Your task to perform on an android device: turn on notifications settings in the gmail app Image 0: 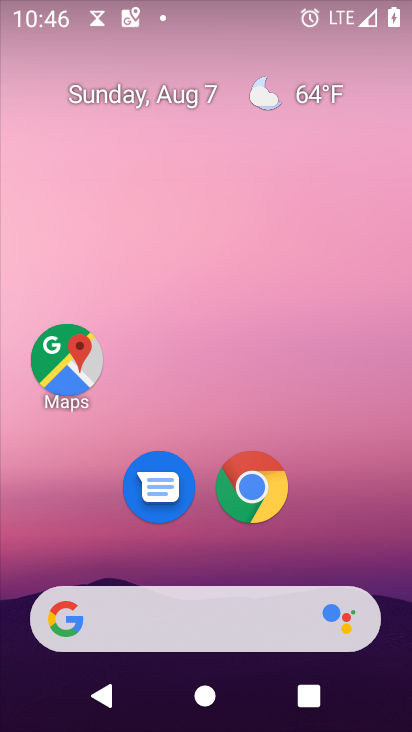
Step 0: drag from (380, 709) to (317, 66)
Your task to perform on an android device: turn on notifications settings in the gmail app Image 1: 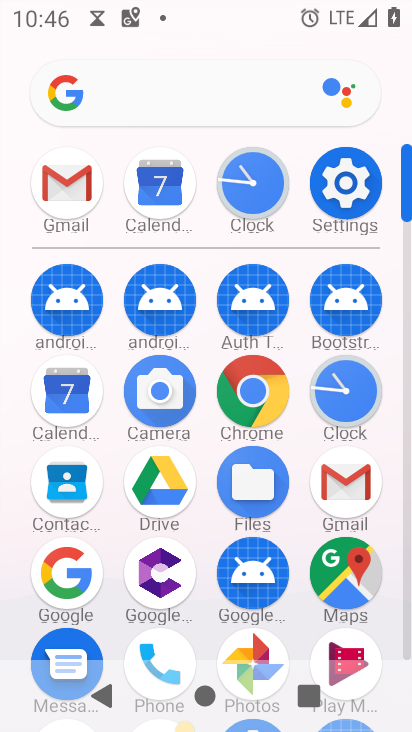
Step 1: click (350, 486)
Your task to perform on an android device: turn on notifications settings in the gmail app Image 2: 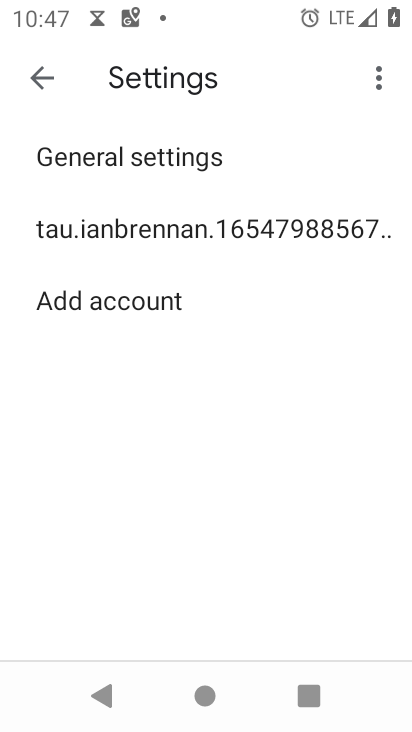
Step 2: click (184, 225)
Your task to perform on an android device: turn on notifications settings in the gmail app Image 3: 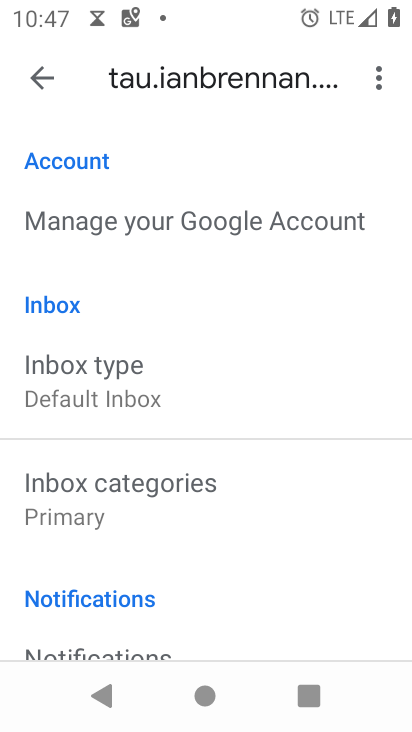
Step 3: click (120, 605)
Your task to perform on an android device: turn on notifications settings in the gmail app Image 4: 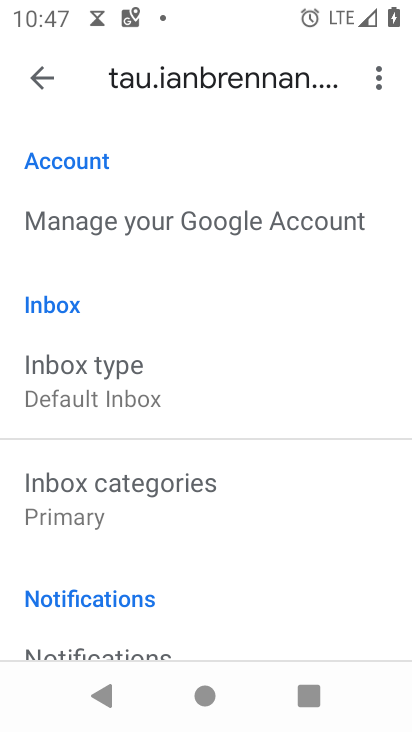
Step 4: click (128, 642)
Your task to perform on an android device: turn on notifications settings in the gmail app Image 5: 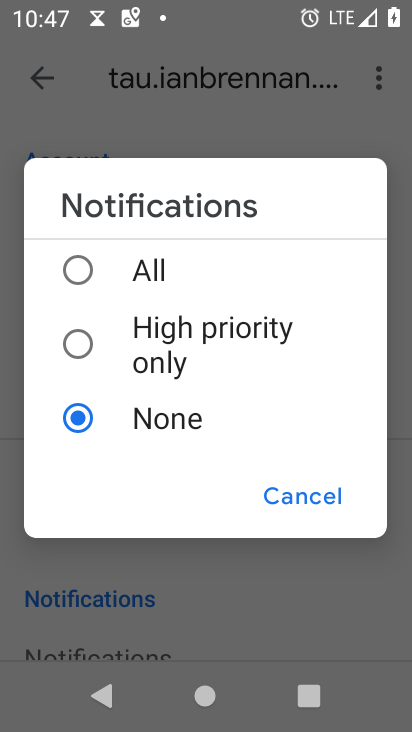
Step 5: click (82, 264)
Your task to perform on an android device: turn on notifications settings in the gmail app Image 6: 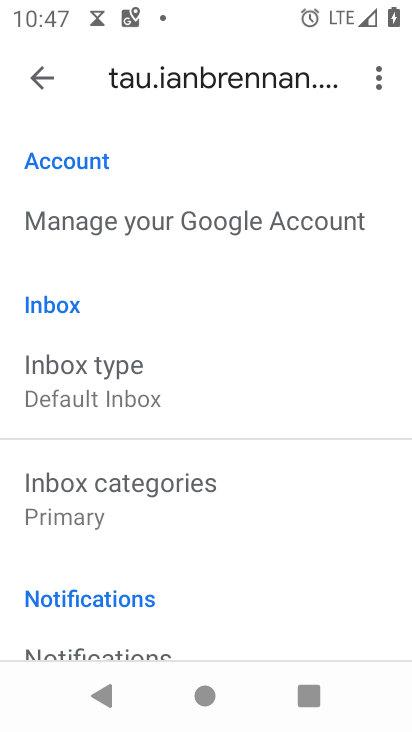
Step 6: task complete